Your task to perform on an android device: Open battery settings Image 0: 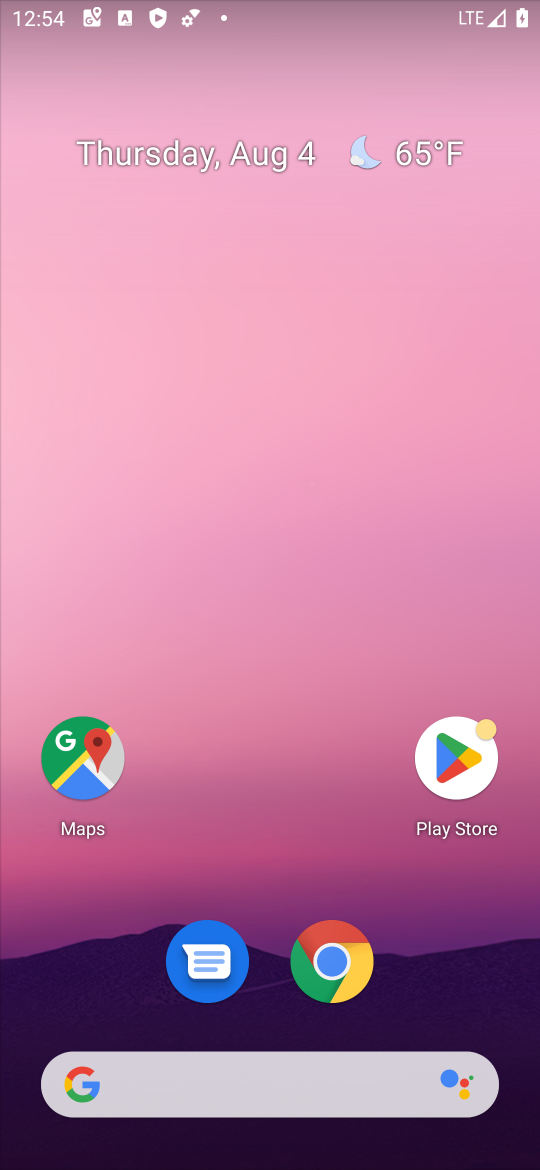
Step 0: drag from (224, 798) to (308, 2)
Your task to perform on an android device: Open battery settings Image 1: 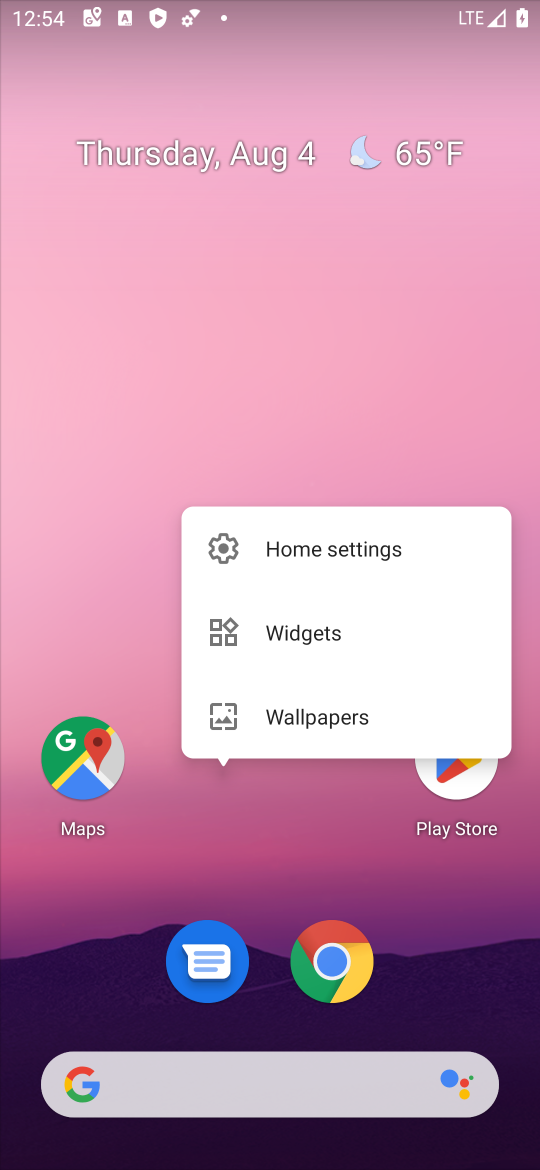
Step 1: click (130, 591)
Your task to perform on an android device: Open battery settings Image 2: 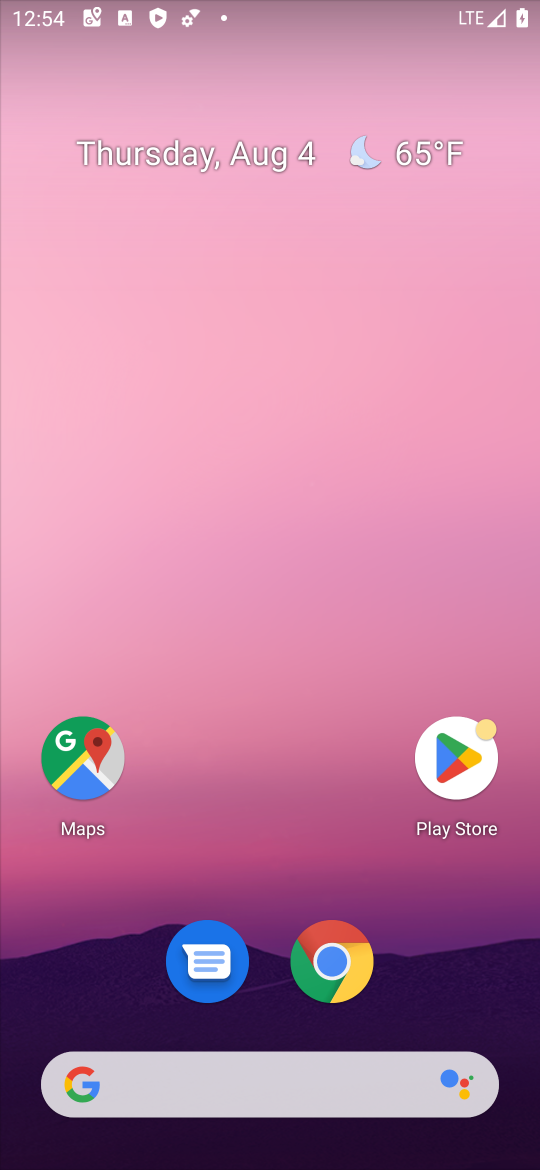
Step 2: drag from (237, 769) to (386, 15)
Your task to perform on an android device: Open battery settings Image 3: 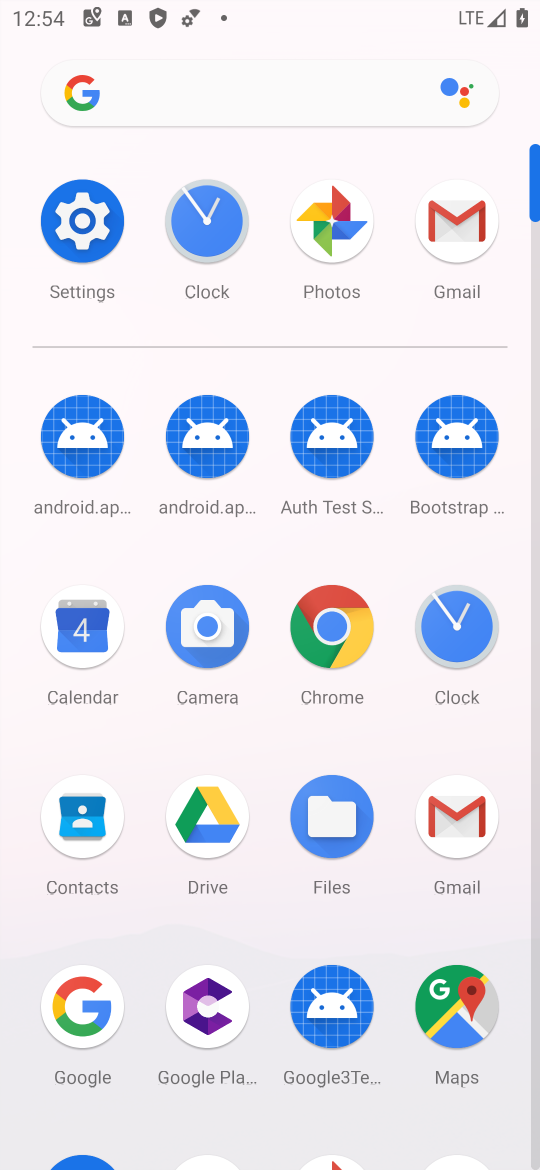
Step 3: click (86, 211)
Your task to perform on an android device: Open battery settings Image 4: 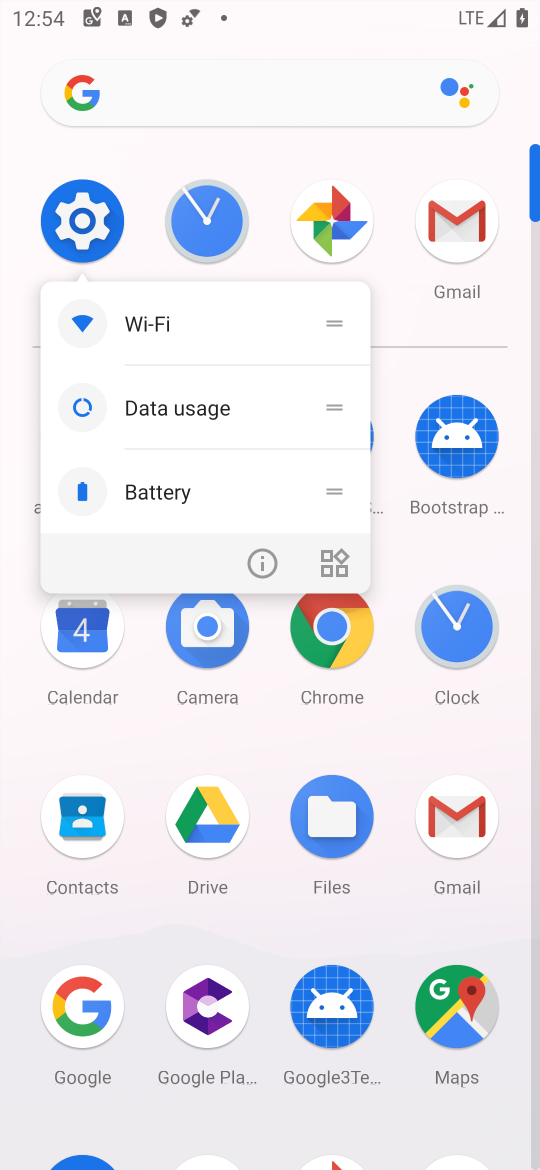
Step 4: click (89, 209)
Your task to perform on an android device: Open battery settings Image 5: 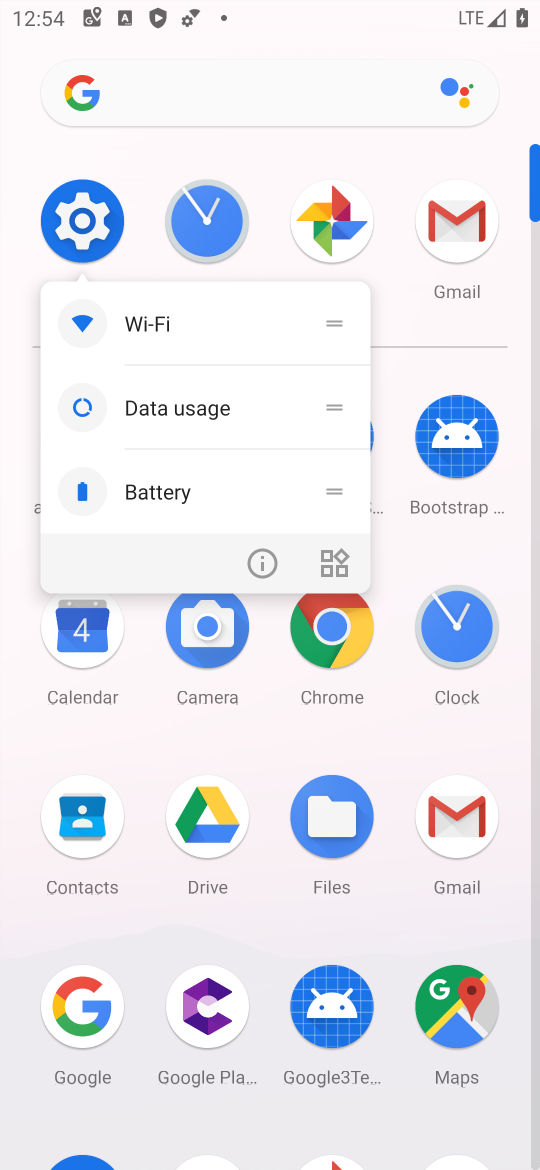
Step 5: click (85, 200)
Your task to perform on an android device: Open battery settings Image 6: 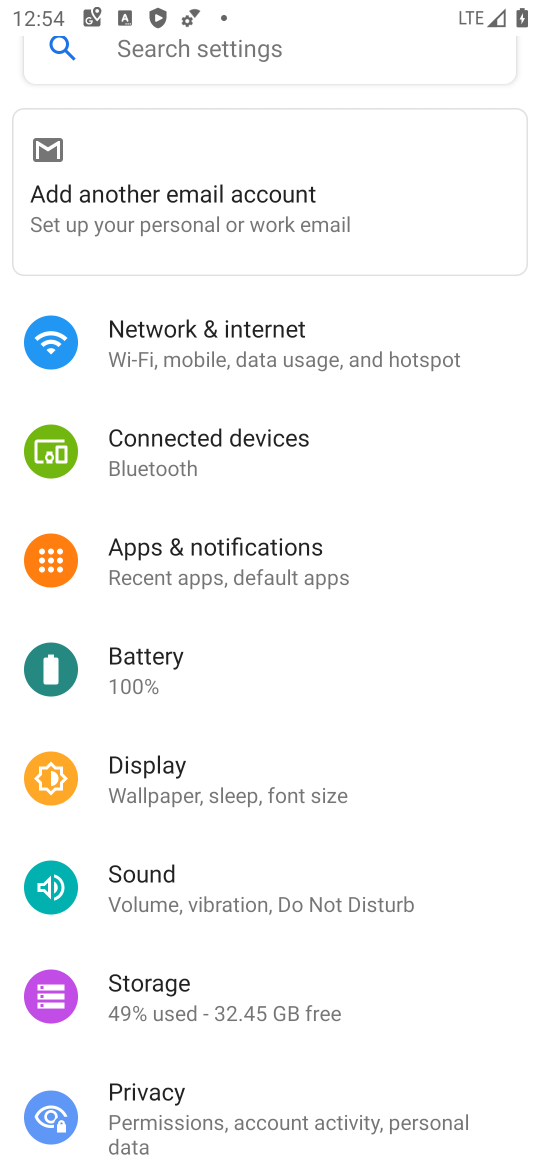
Step 6: click (152, 658)
Your task to perform on an android device: Open battery settings Image 7: 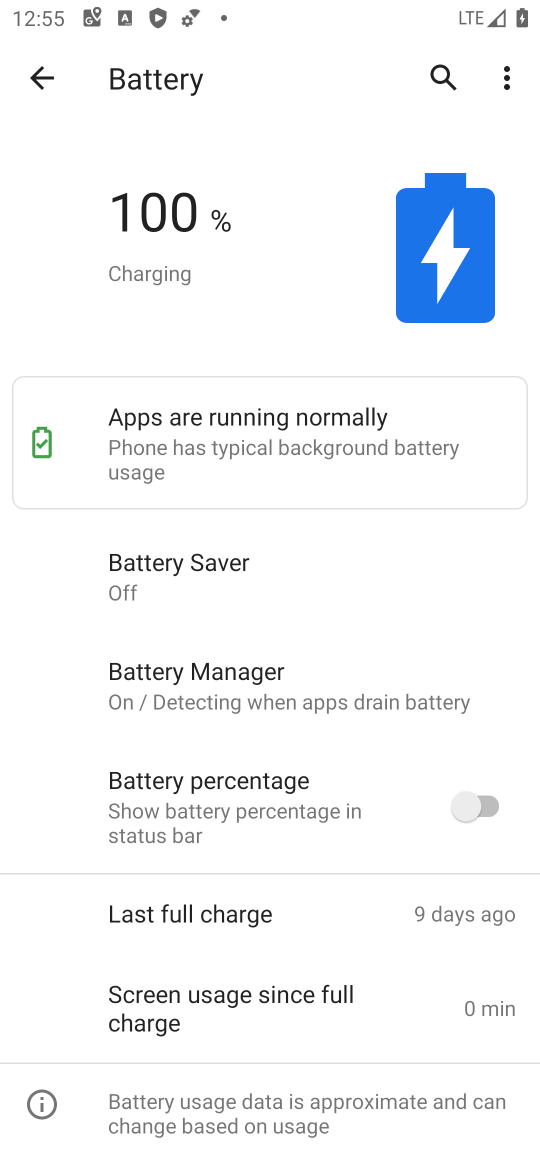
Step 7: task complete